Your task to perform on an android device: Open Reddit.com Image 0: 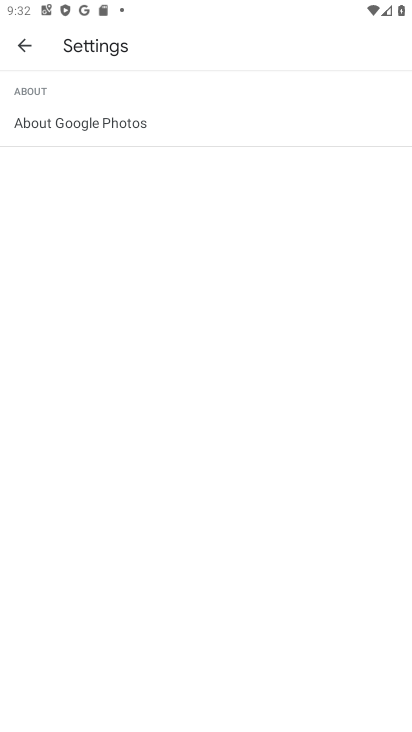
Step 0: press home button
Your task to perform on an android device: Open Reddit.com Image 1: 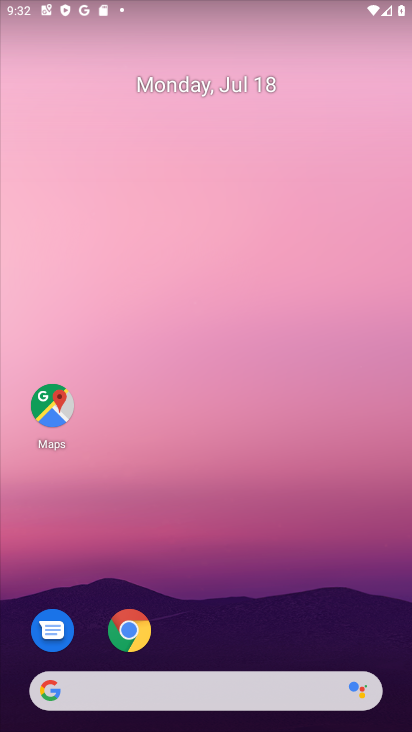
Step 1: drag from (340, 622) to (210, 25)
Your task to perform on an android device: Open Reddit.com Image 2: 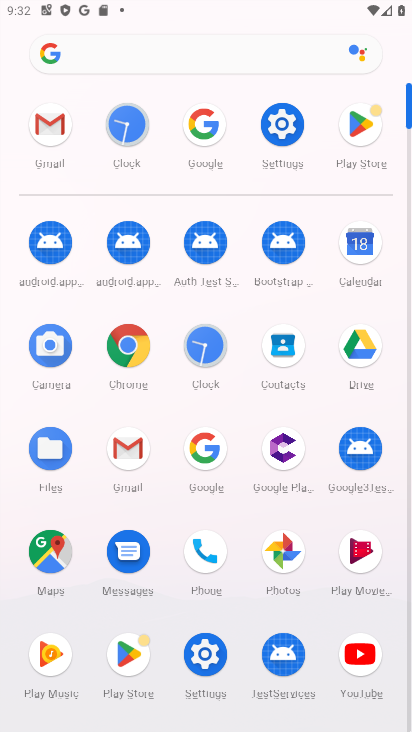
Step 2: click (198, 131)
Your task to perform on an android device: Open Reddit.com Image 3: 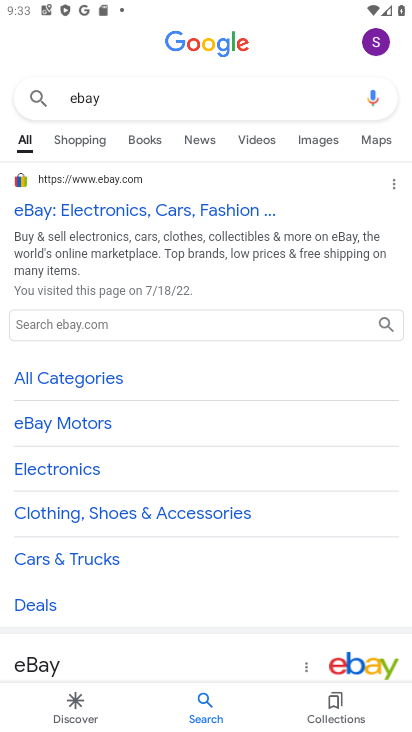
Step 3: press back button
Your task to perform on an android device: Open Reddit.com Image 4: 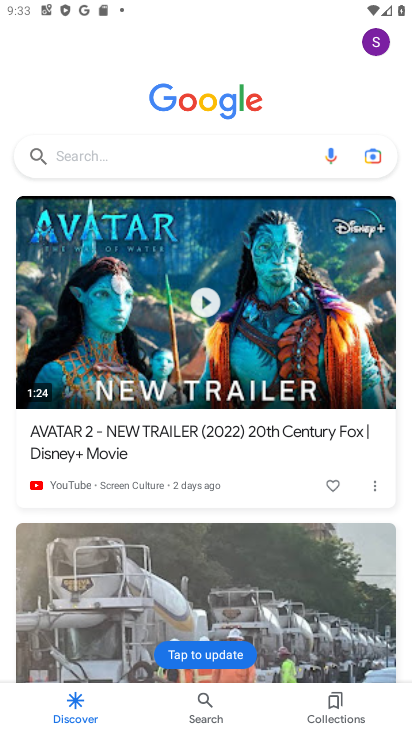
Step 4: click (72, 168)
Your task to perform on an android device: Open Reddit.com Image 5: 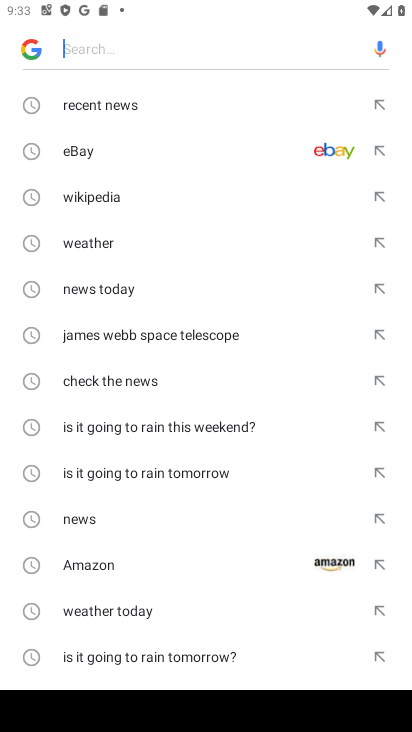
Step 5: type "Reddit.com"
Your task to perform on an android device: Open Reddit.com Image 6: 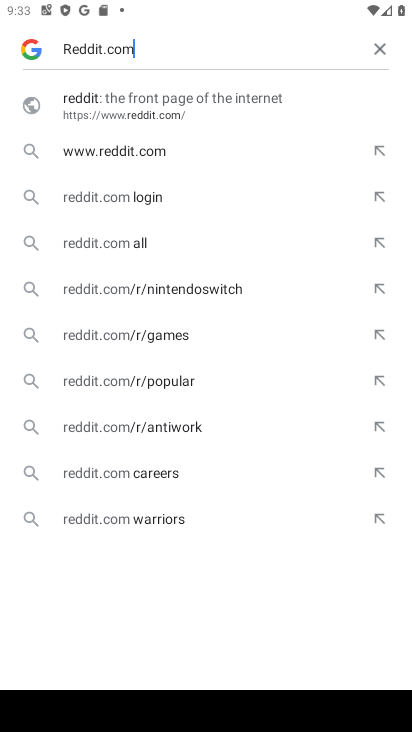
Step 6: click (218, 113)
Your task to perform on an android device: Open Reddit.com Image 7: 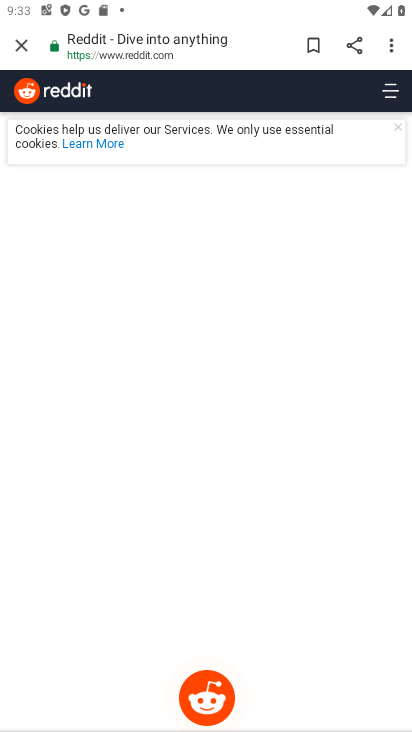
Step 7: task complete